Your task to perform on an android device: Open Youtube and go to the subscriptions tab Image 0: 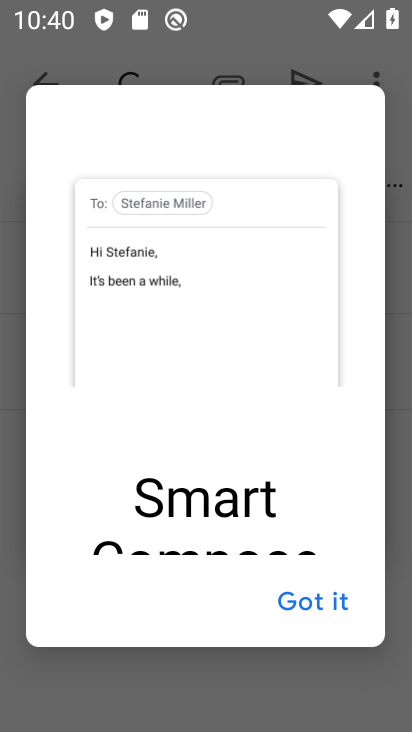
Step 0: press home button
Your task to perform on an android device: Open Youtube and go to the subscriptions tab Image 1: 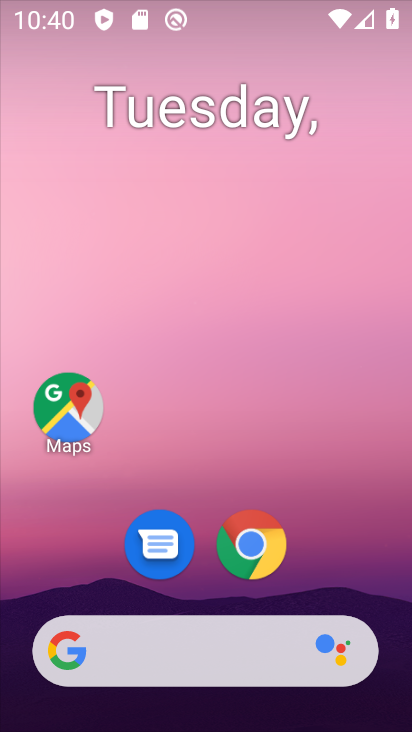
Step 1: drag from (389, 630) to (370, 72)
Your task to perform on an android device: Open Youtube and go to the subscriptions tab Image 2: 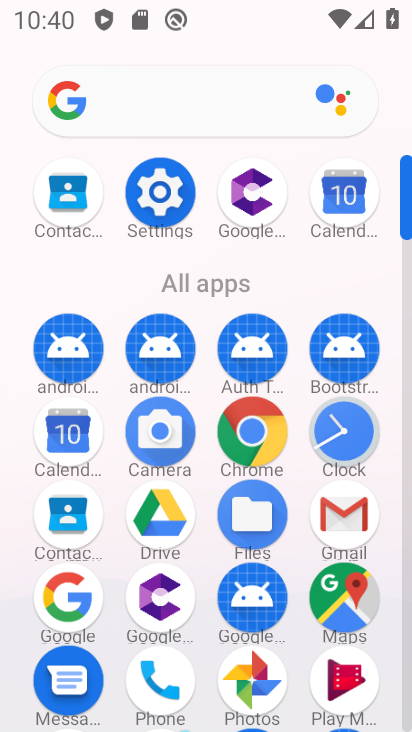
Step 2: drag from (303, 655) to (318, 172)
Your task to perform on an android device: Open Youtube and go to the subscriptions tab Image 3: 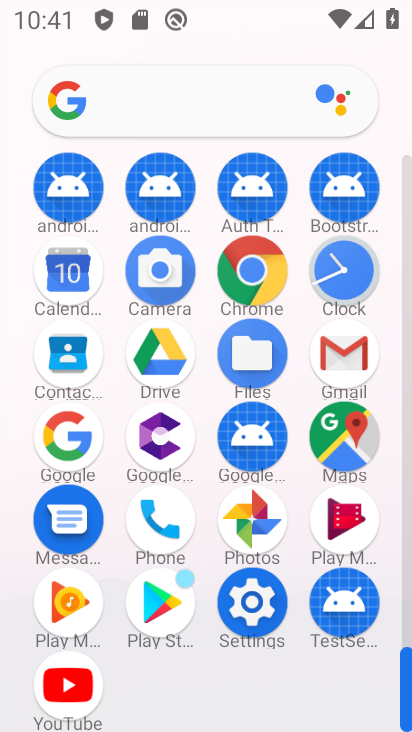
Step 3: click (68, 689)
Your task to perform on an android device: Open Youtube and go to the subscriptions tab Image 4: 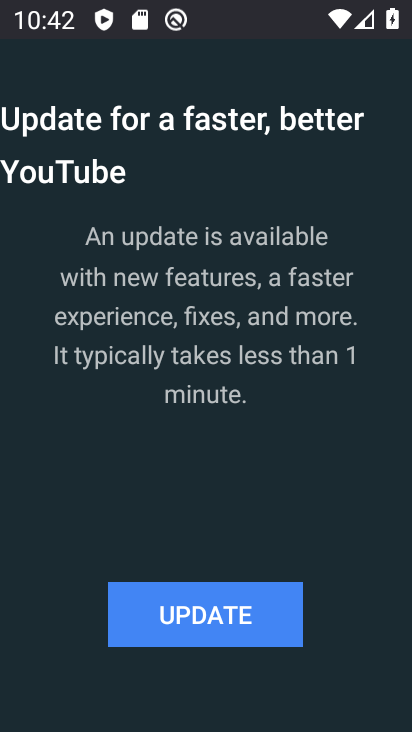
Step 4: click (251, 612)
Your task to perform on an android device: Open Youtube and go to the subscriptions tab Image 5: 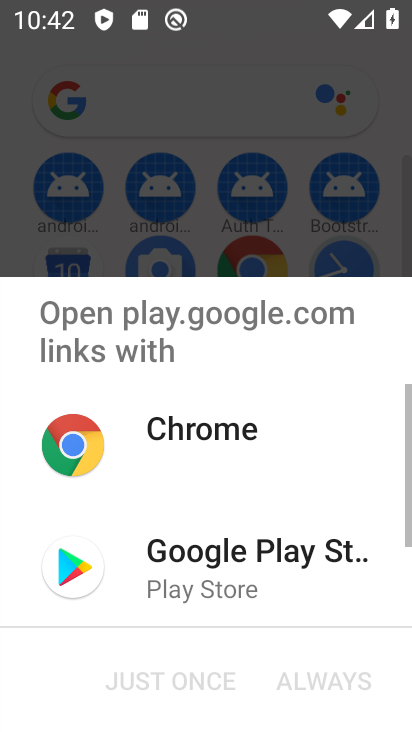
Step 5: click (223, 564)
Your task to perform on an android device: Open Youtube and go to the subscriptions tab Image 6: 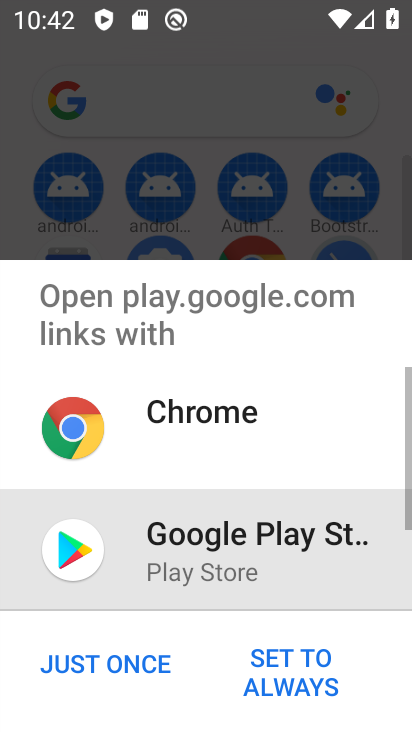
Step 6: click (114, 669)
Your task to perform on an android device: Open Youtube and go to the subscriptions tab Image 7: 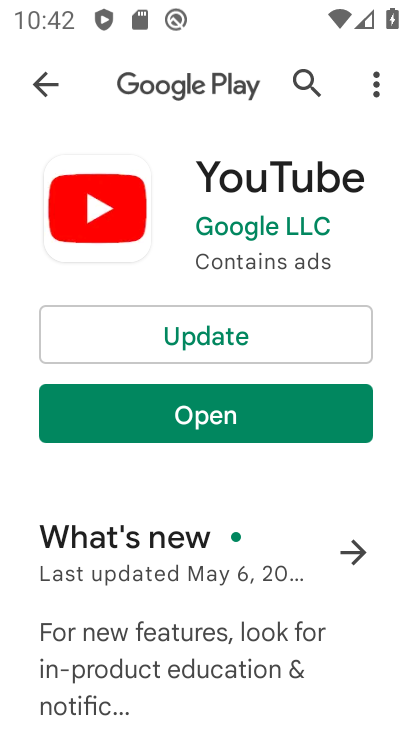
Step 7: click (175, 340)
Your task to perform on an android device: Open Youtube and go to the subscriptions tab Image 8: 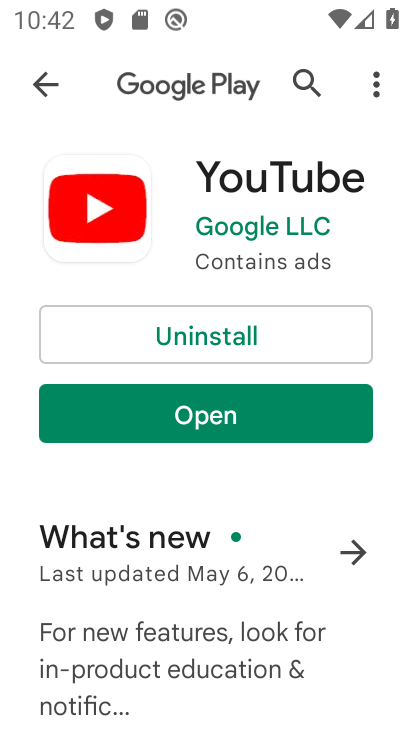
Step 8: click (195, 416)
Your task to perform on an android device: Open Youtube and go to the subscriptions tab Image 9: 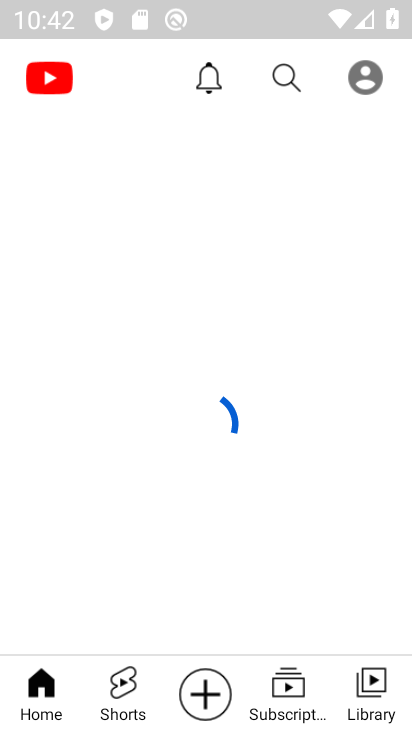
Step 9: click (264, 684)
Your task to perform on an android device: Open Youtube and go to the subscriptions tab Image 10: 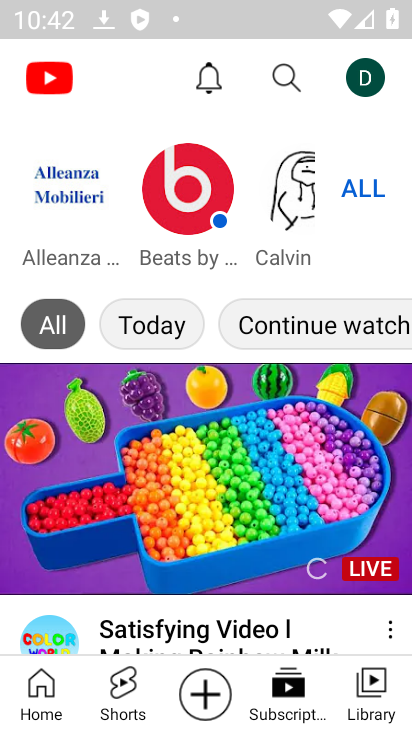
Step 10: task complete